Your task to perform on an android device: Open network settings Image 0: 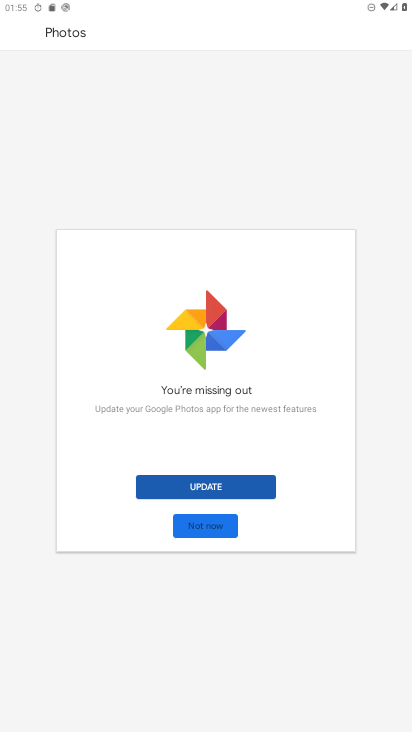
Step 0: press home button
Your task to perform on an android device: Open network settings Image 1: 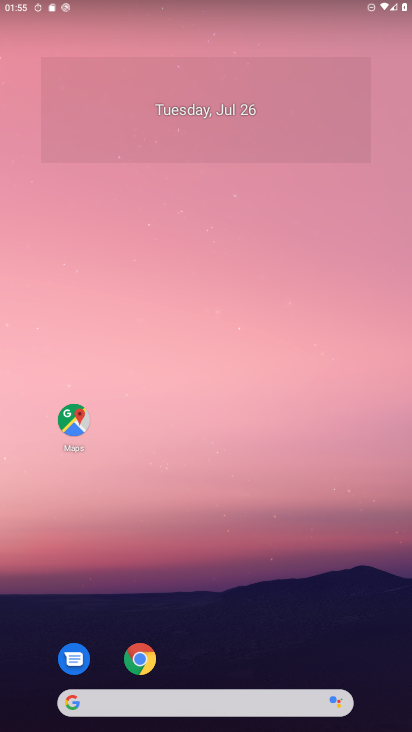
Step 1: drag from (134, 316) to (145, 18)
Your task to perform on an android device: Open network settings Image 2: 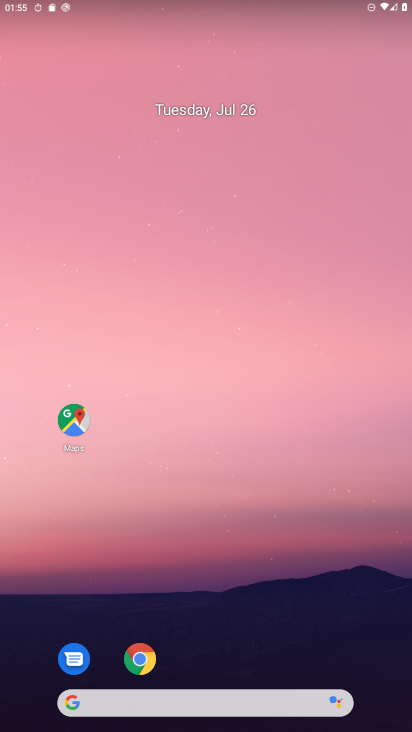
Step 2: drag from (12, 669) to (105, 128)
Your task to perform on an android device: Open network settings Image 3: 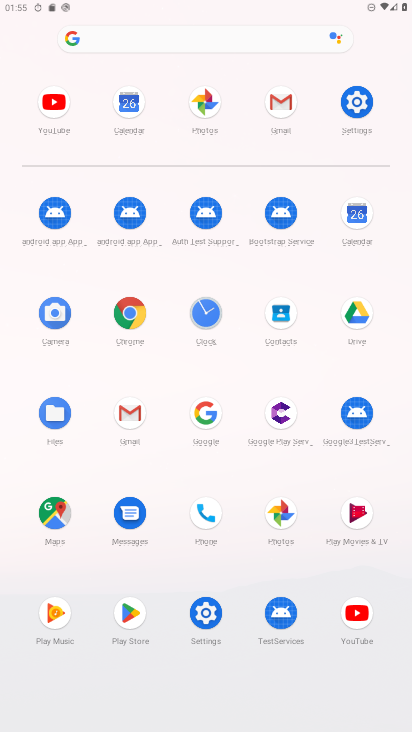
Step 3: click (190, 619)
Your task to perform on an android device: Open network settings Image 4: 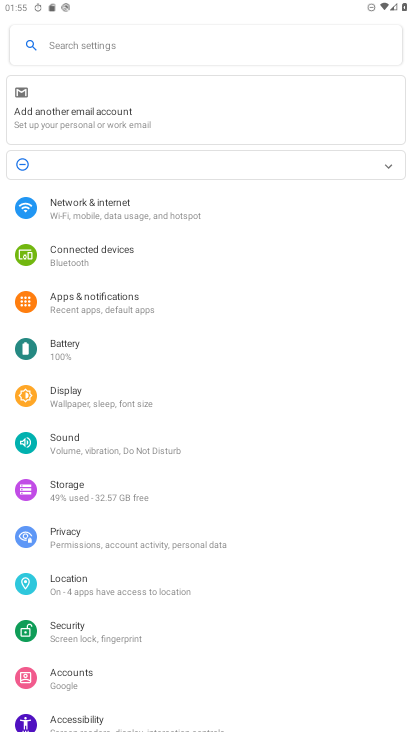
Step 4: click (52, 201)
Your task to perform on an android device: Open network settings Image 5: 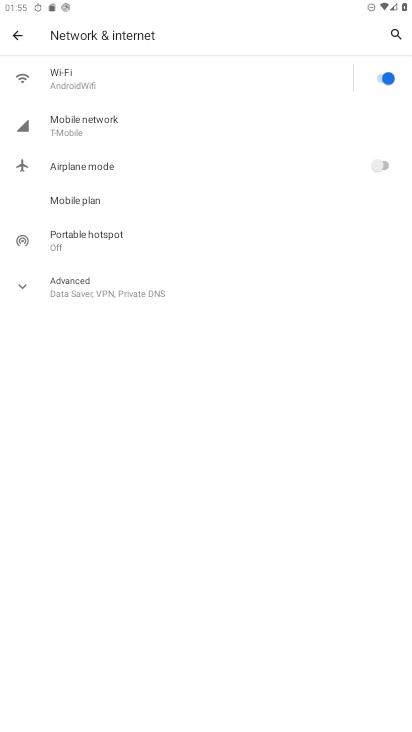
Step 5: task complete